Your task to perform on an android device: turn off picture-in-picture Image 0: 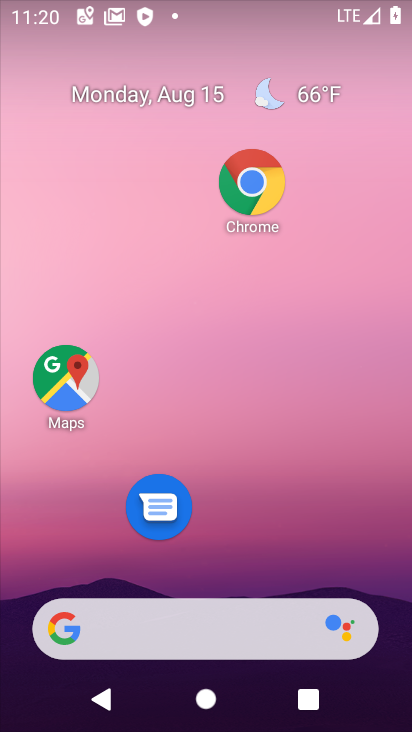
Step 0: click (225, 184)
Your task to perform on an android device: turn off picture-in-picture Image 1: 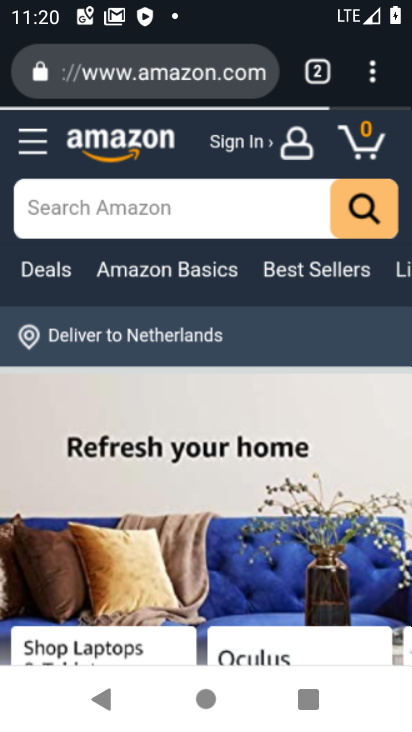
Step 1: click (369, 73)
Your task to perform on an android device: turn off picture-in-picture Image 2: 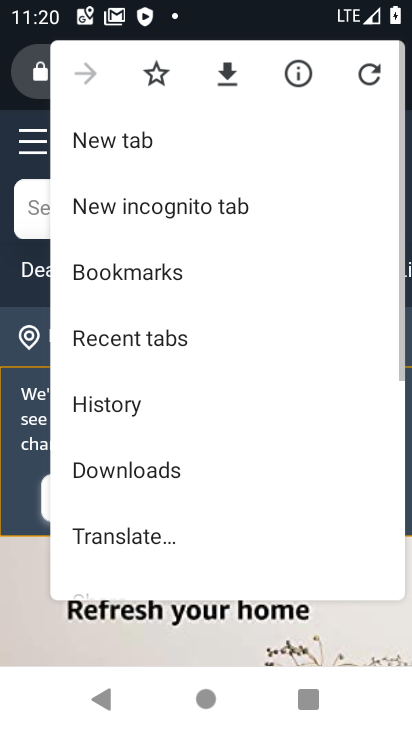
Step 2: drag from (212, 383) to (254, 75)
Your task to perform on an android device: turn off picture-in-picture Image 3: 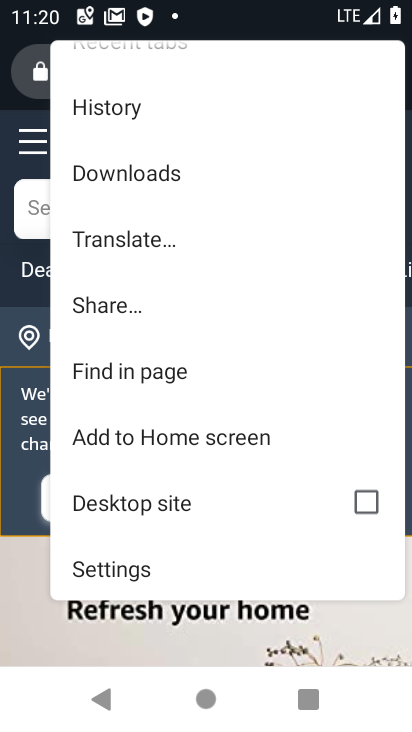
Step 3: click (169, 582)
Your task to perform on an android device: turn off picture-in-picture Image 4: 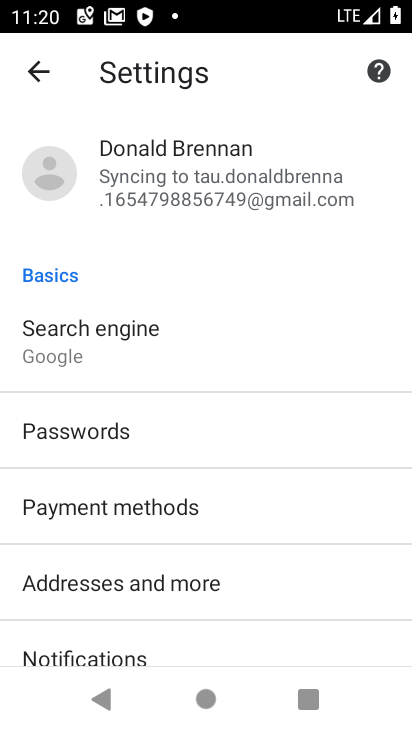
Step 4: task complete